Your task to perform on an android device: When is my next appointment? Image 0: 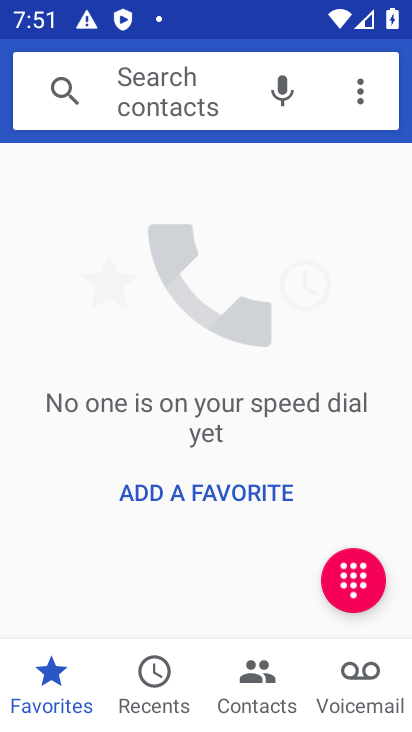
Step 0: press home button
Your task to perform on an android device: When is my next appointment? Image 1: 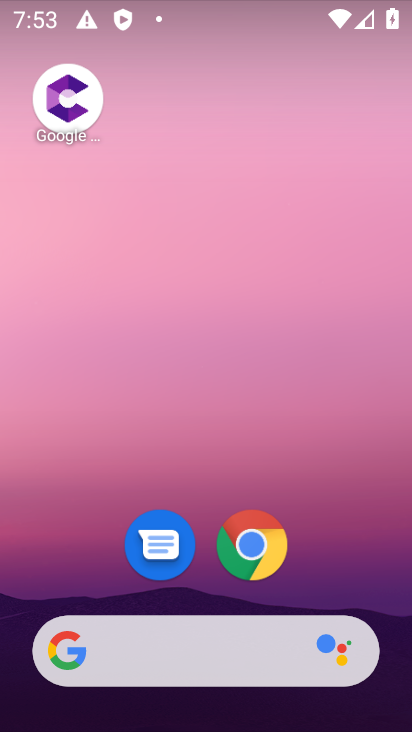
Step 1: drag from (28, 580) to (325, 33)
Your task to perform on an android device: When is my next appointment? Image 2: 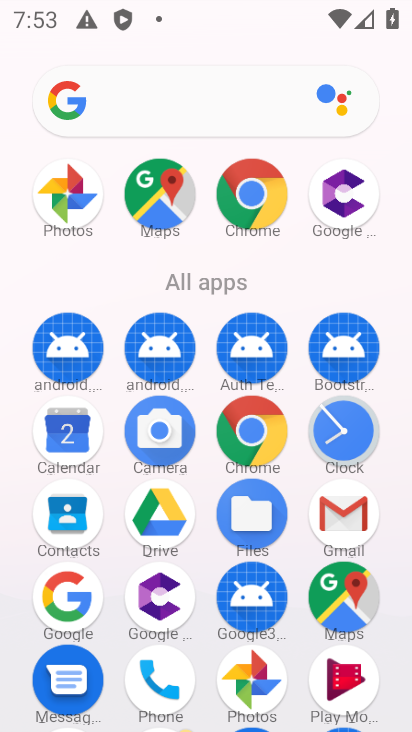
Step 2: click (67, 442)
Your task to perform on an android device: When is my next appointment? Image 3: 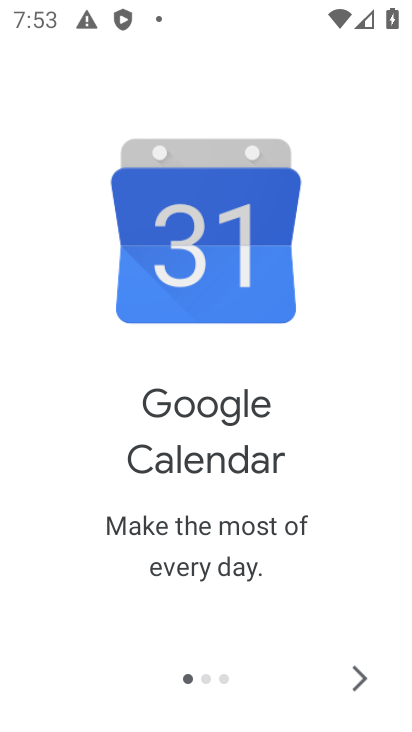
Step 3: click (354, 673)
Your task to perform on an android device: When is my next appointment? Image 4: 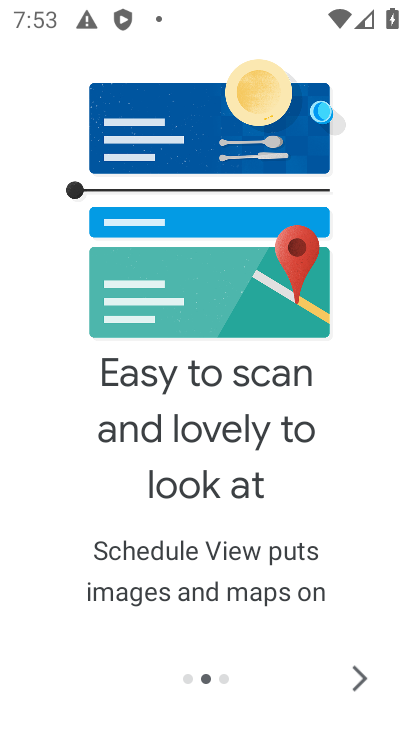
Step 4: click (354, 672)
Your task to perform on an android device: When is my next appointment? Image 5: 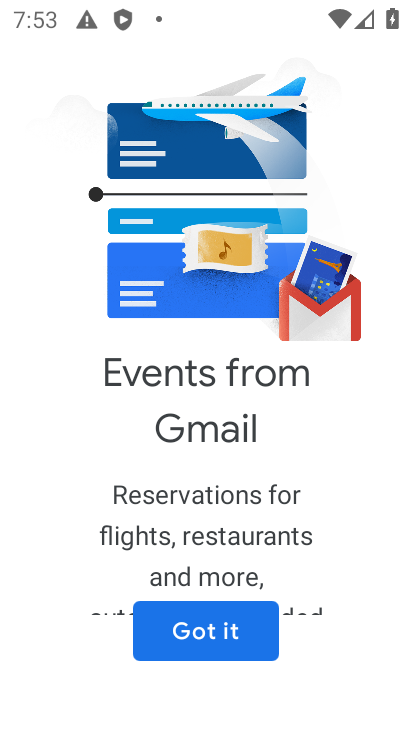
Step 5: click (143, 613)
Your task to perform on an android device: When is my next appointment? Image 6: 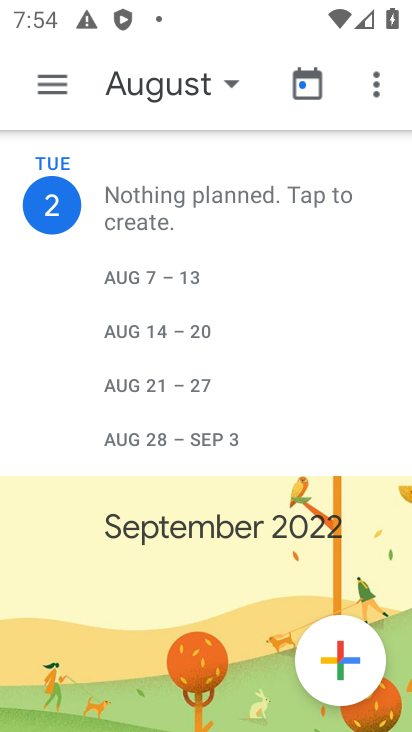
Step 6: task complete